Your task to perform on an android device: Open the Play Movies app and select the watchlist tab. Image 0: 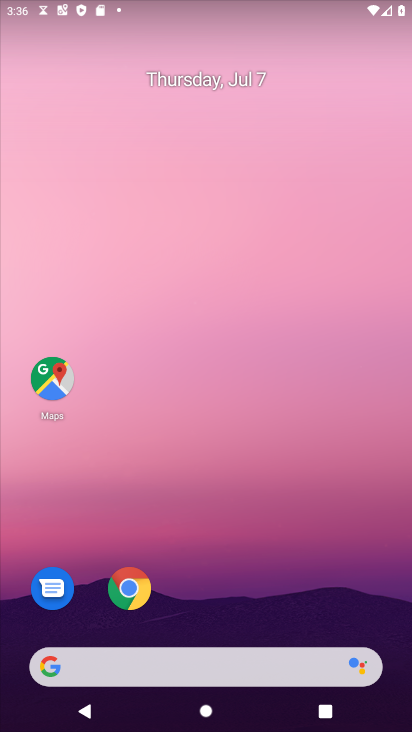
Step 0: drag from (229, 611) to (287, 130)
Your task to perform on an android device: Open the Play Movies app and select the watchlist tab. Image 1: 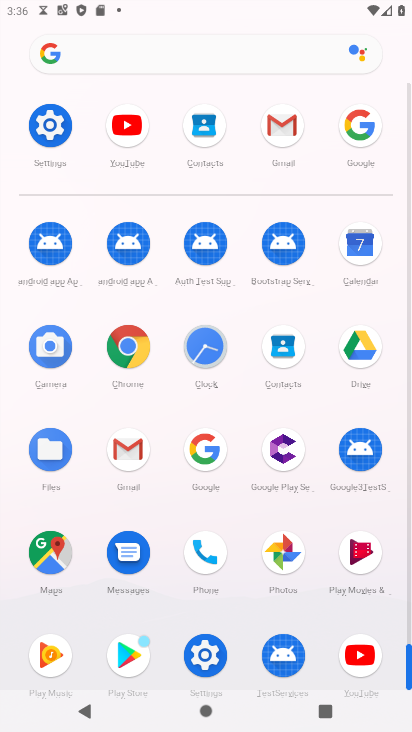
Step 1: click (359, 551)
Your task to perform on an android device: Open the Play Movies app and select the watchlist tab. Image 2: 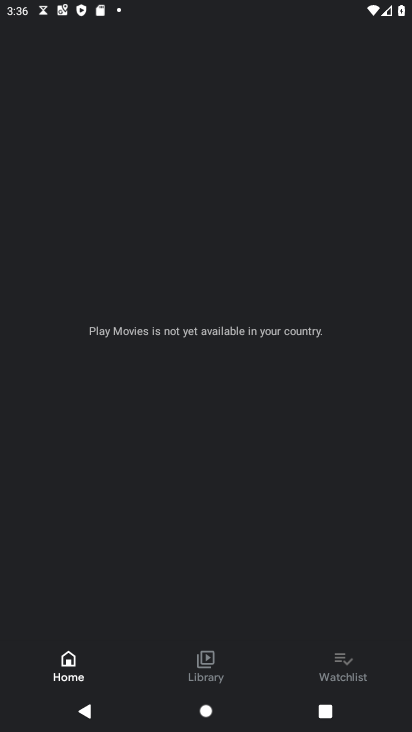
Step 2: click (345, 663)
Your task to perform on an android device: Open the Play Movies app and select the watchlist tab. Image 3: 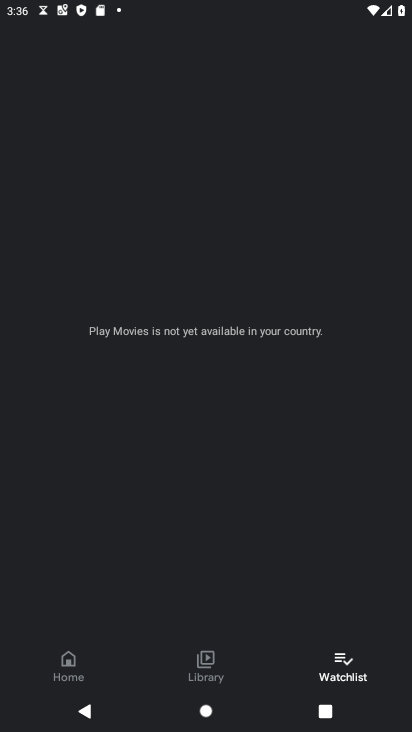
Step 3: task complete